Your task to perform on an android device: set an alarm Image 0: 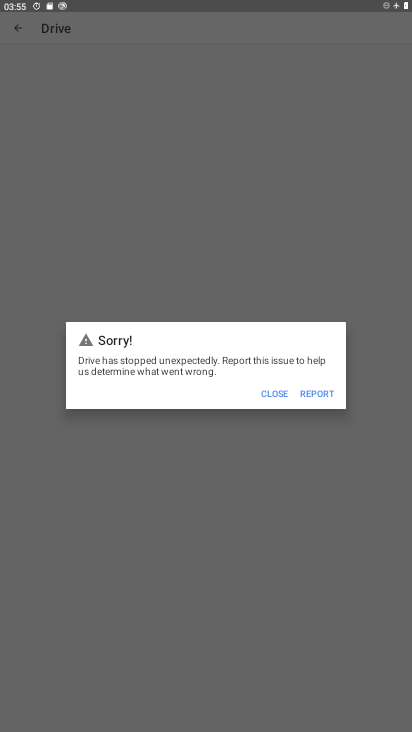
Step 0: press home button
Your task to perform on an android device: set an alarm Image 1: 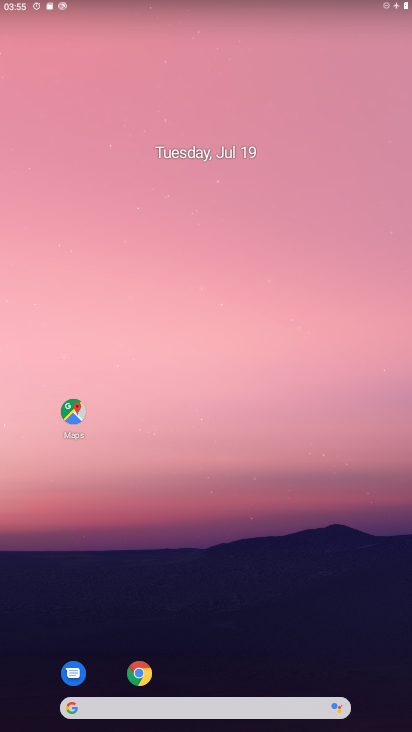
Step 1: drag from (268, 659) to (246, 51)
Your task to perform on an android device: set an alarm Image 2: 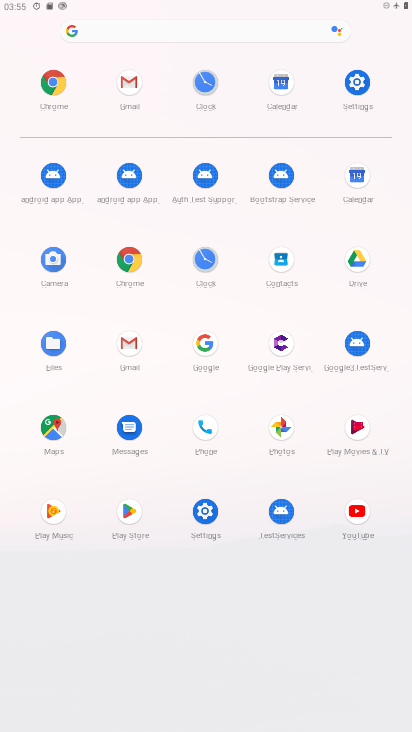
Step 2: click (207, 260)
Your task to perform on an android device: set an alarm Image 3: 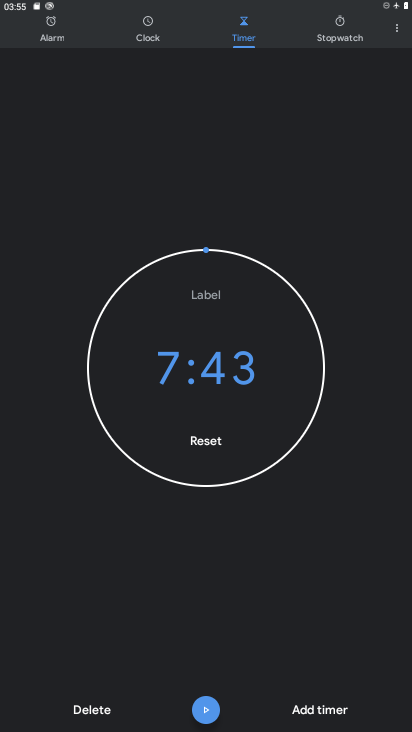
Step 3: click (43, 32)
Your task to perform on an android device: set an alarm Image 4: 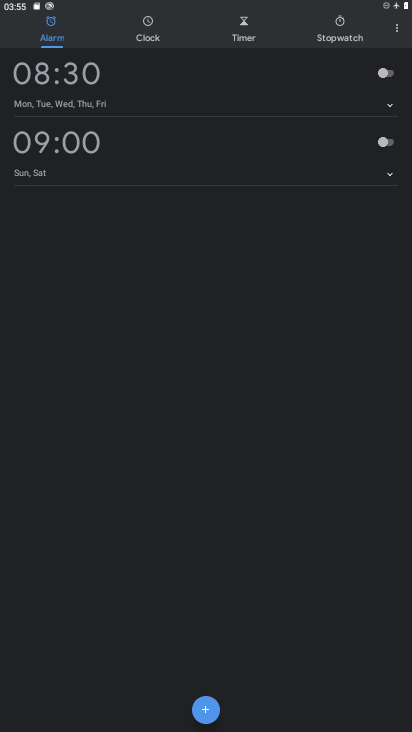
Step 4: click (390, 75)
Your task to perform on an android device: set an alarm Image 5: 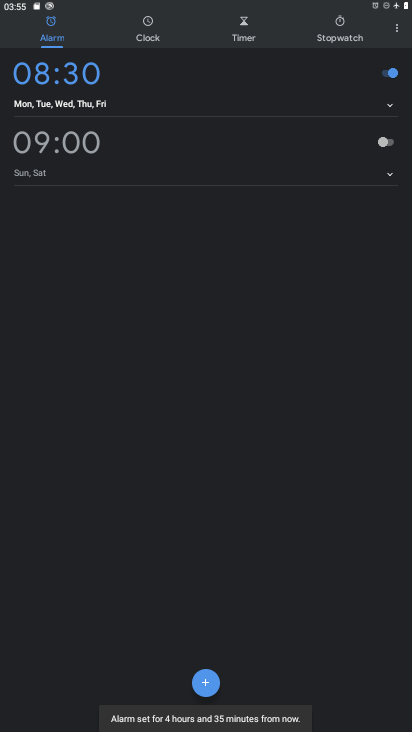
Step 5: click (55, 92)
Your task to perform on an android device: set an alarm Image 6: 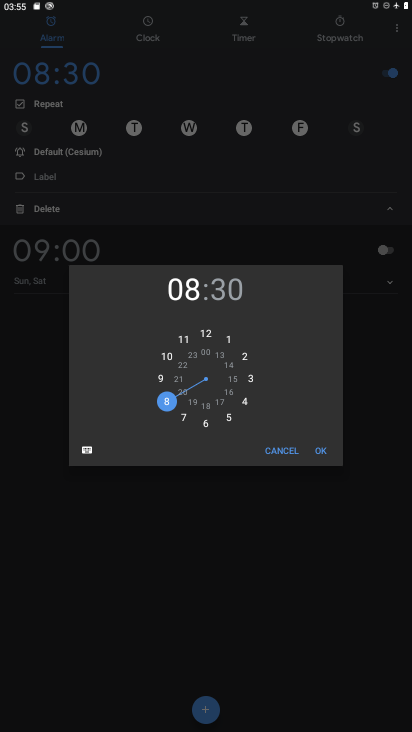
Step 6: click (182, 332)
Your task to perform on an android device: set an alarm Image 7: 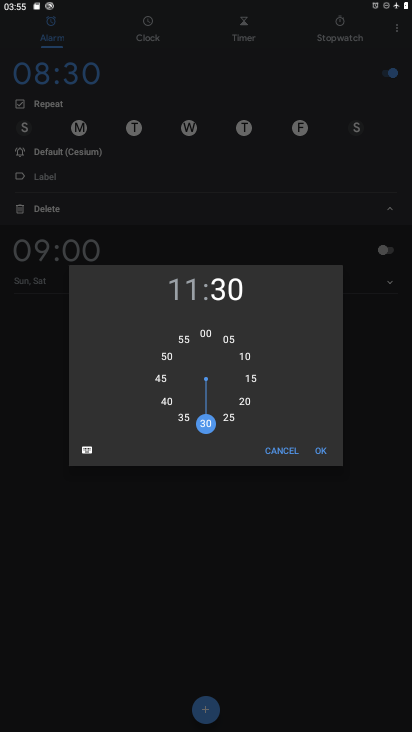
Step 7: click (227, 366)
Your task to perform on an android device: set an alarm Image 8: 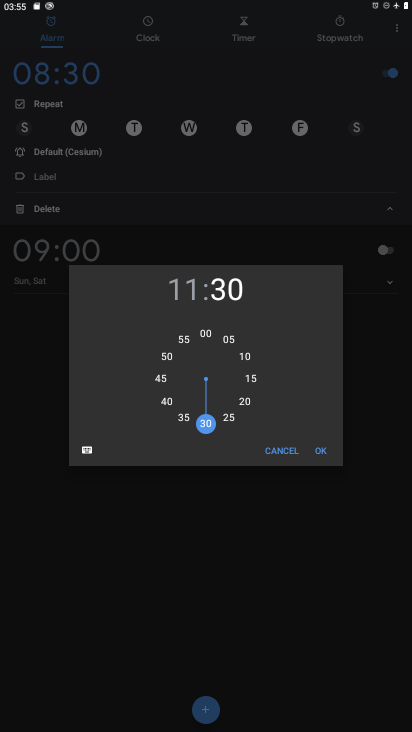
Step 8: click (244, 354)
Your task to perform on an android device: set an alarm Image 9: 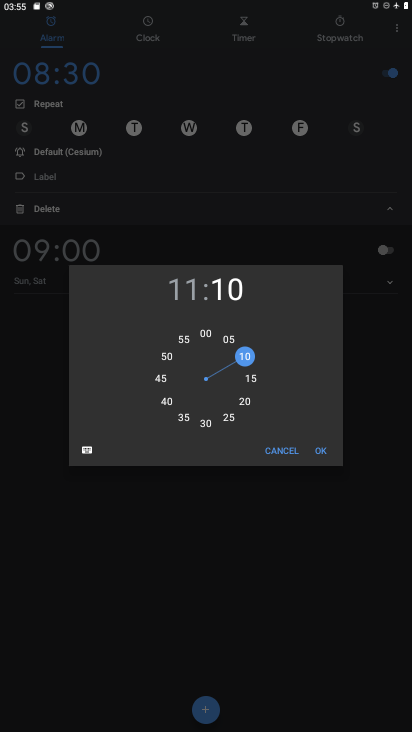
Step 9: click (326, 452)
Your task to perform on an android device: set an alarm Image 10: 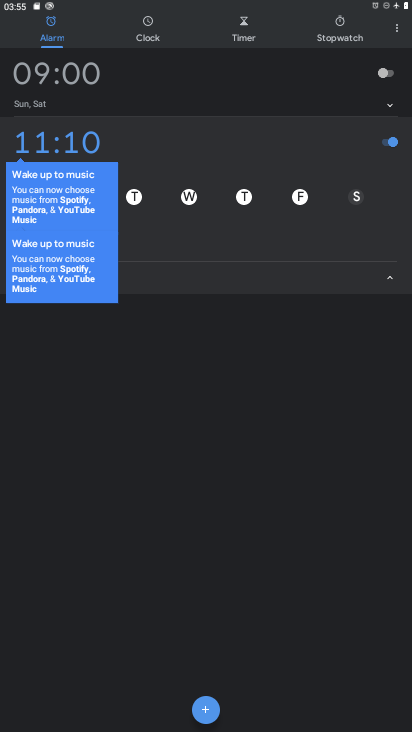
Step 10: task complete